Your task to perform on an android device: Show me productivity apps on the Play Store Image 0: 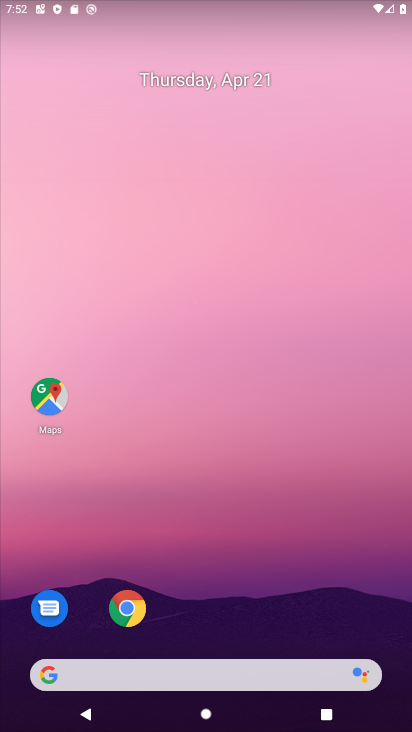
Step 0: drag from (169, 652) to (209, 242)
Your task to perform on an android device: Show me productivity apps on the Play Store Image 1: 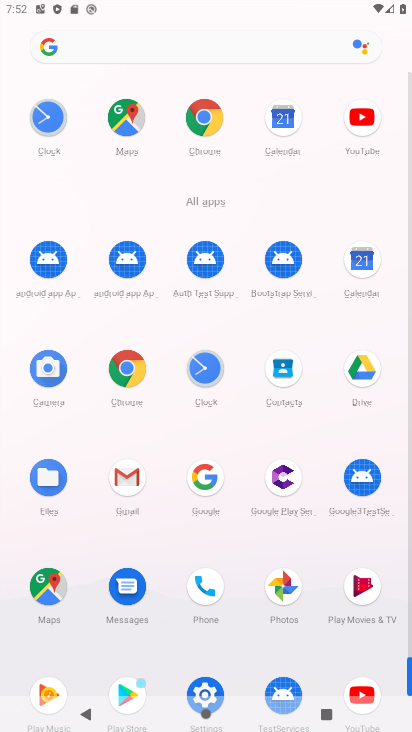
Step 1: click (129, 684)
Your task to perform on an android device: Show me productivity apps on the Play Store Image 2: 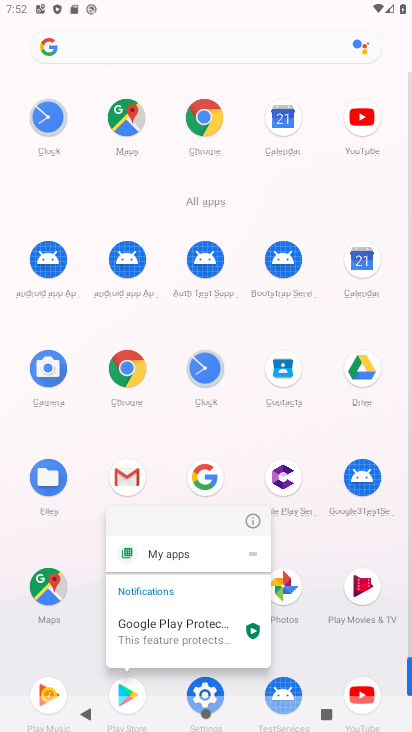
Step 2: click (128, 685)
Your task to perform on an android device: Show me productivity apps on the Play Store Image 3: 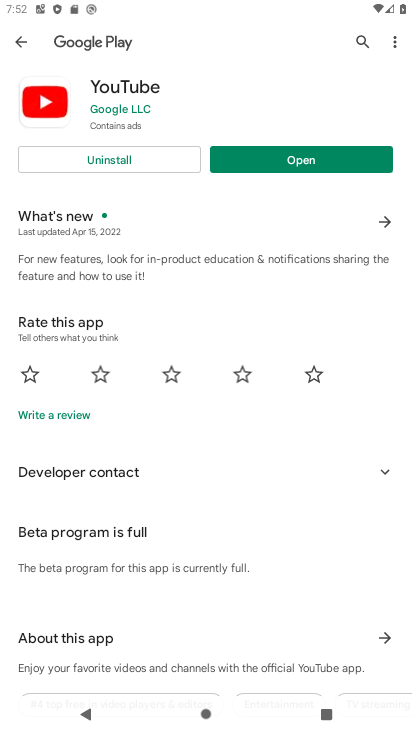
Step 3: click (23, 40)
Your task to perform on an android device: Show me productivity apps on the Play Store Image 4: 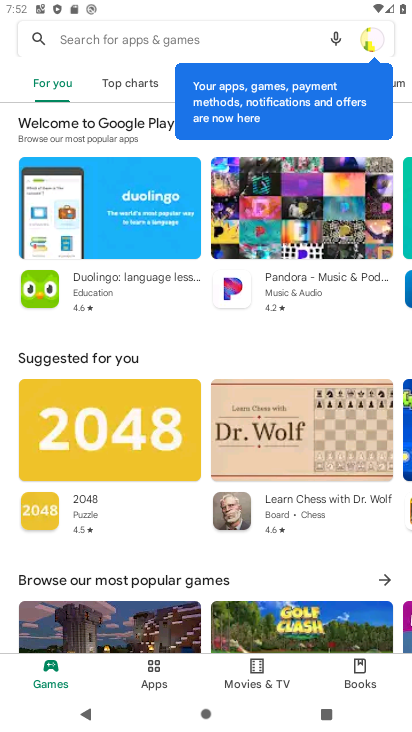
Step 4: click (154, 670)
Your task to perform on an android device: Show me productivity apps on the Play Store Image 5: 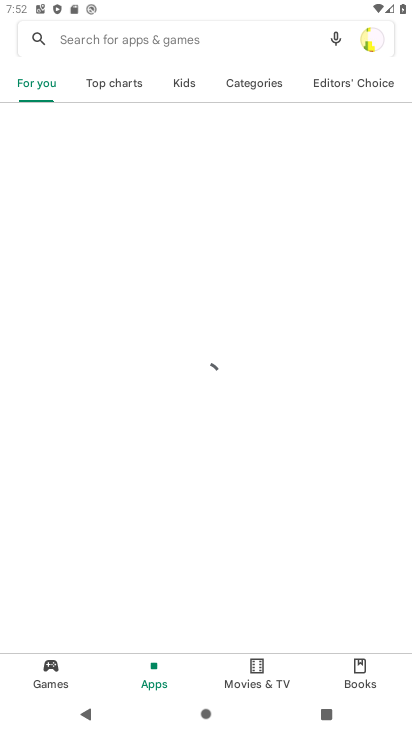
Step 5: click (190, 414)
Your task to perform on an android device: Show me productivity apps on the Play Store Image 6: 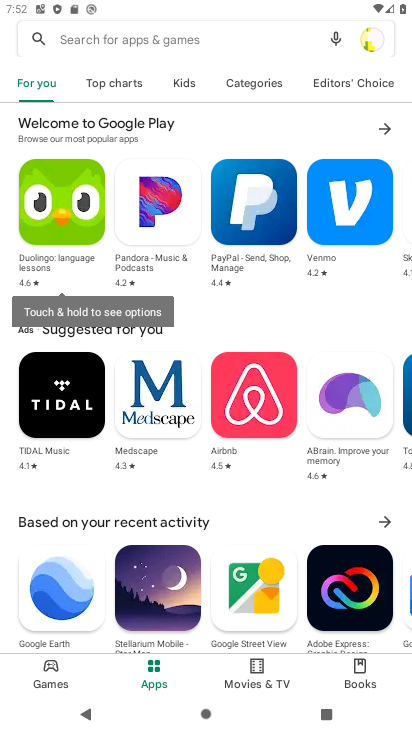
Step 6: click (258, 82)
Your task to perform on an android device: Show me productivity apps on the Play Store Image 7: 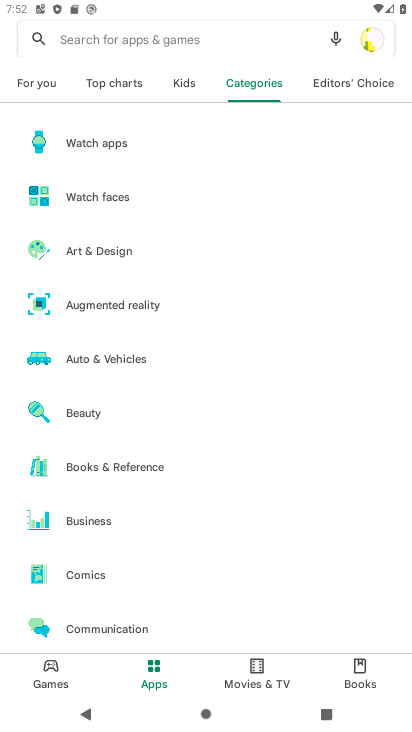
Step 7: drag from (120, 605) to (256, 138)
Your task to perform on an android device: Show me productivity apps on the Play Store Image 8: 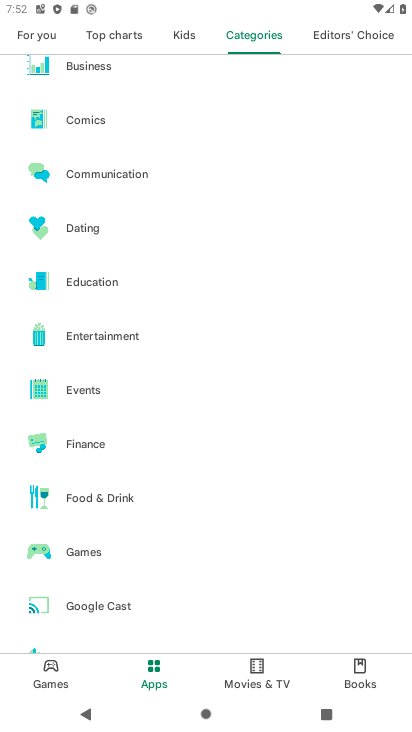
Step 8: drag from (80, 600) to (212, 95)
Your task to perform on an android device: Show me productivity apps on the Play Store Image 9: 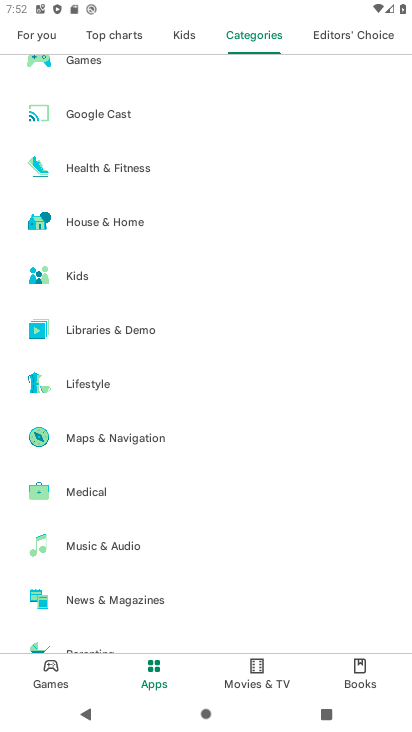
Step 9: drag from (97, 596) to (230, 156)
Your task to perform on an android device: Show me productivity apps on the Play Store Image 10: 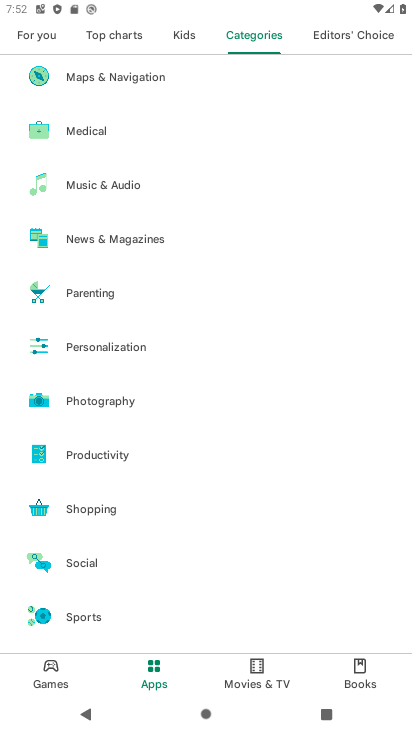
Step 10: click (94, 460)
Your task to perform on an android device: Show me productivity apps on the Play Store Image 11: 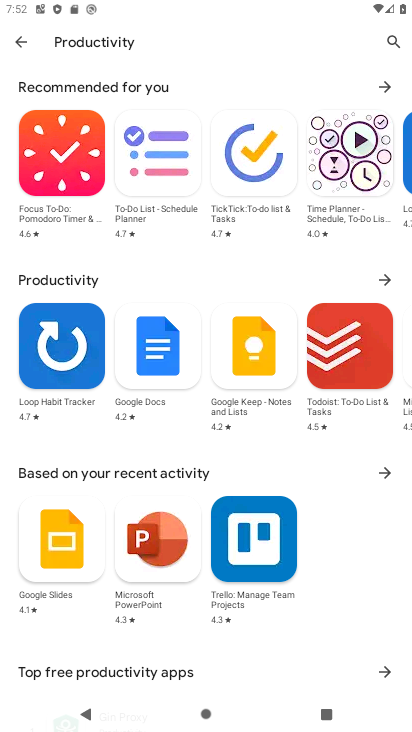
Step 11: task complete